Your task to perform on an android device: Play the last video I watched on Youtube Image 0: 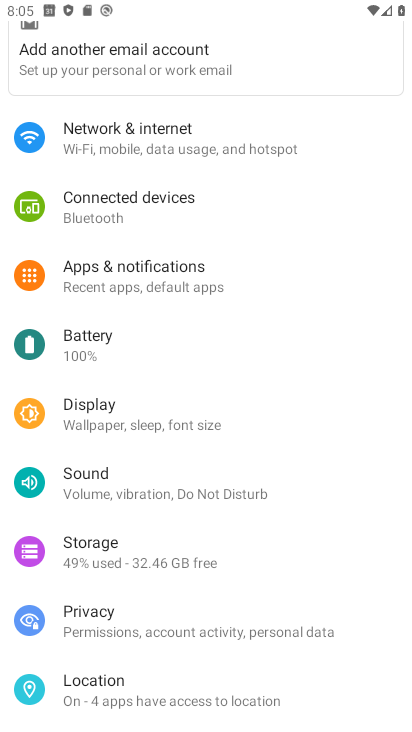
Step 0: press home button
Your task to perform on an android device: Play the last video I watched on Youtube Image 1: 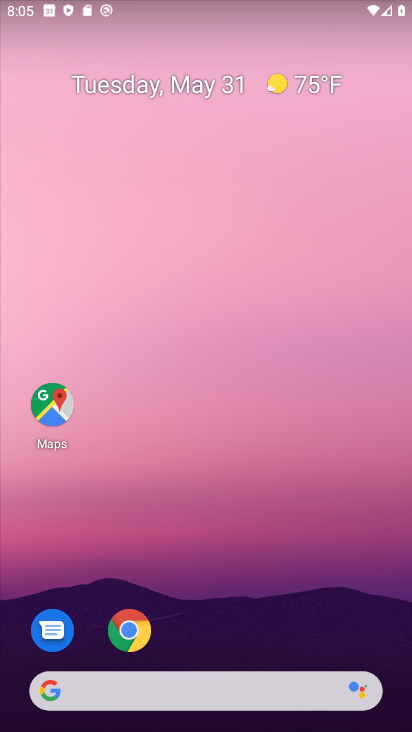
Step 1: drag from (184, 630) to (200, 204)
Your task to perform on an android device: Play the last video I watched on Youtube Image 2: 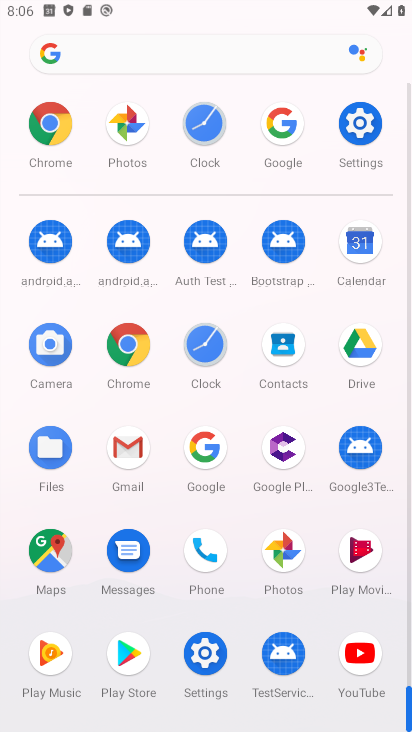
Step 2: click (365, 652)
Your task to perform on an android device: Play the last video I watched on Youtube Image 3: 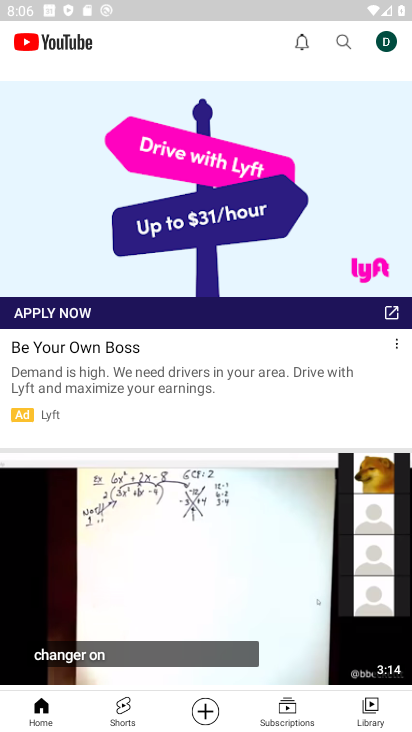
Step 3: click (376, 722)
Your task to perform on an android device: Play the last video I watched on Youtube Image 4: 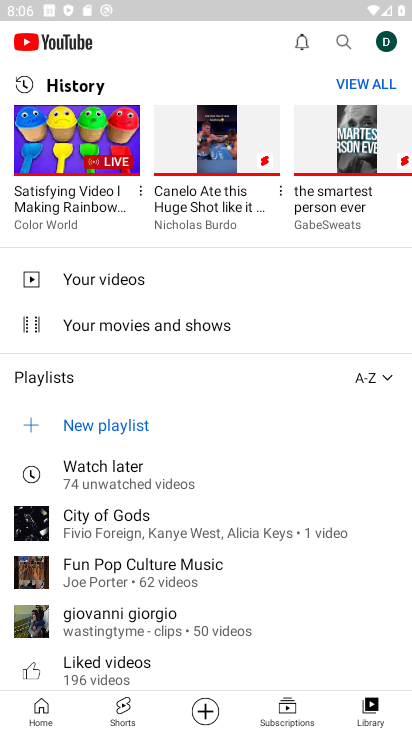
Step 4: click (65, 157)
Your task to perform on an android device: Play the last video I watched on Youtube Image 5: 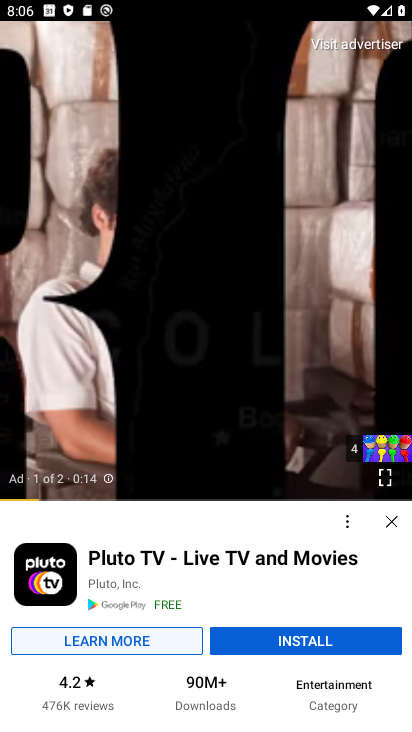
Step 5: task complete